Your task to perform on an android device: check battery use Image 0: 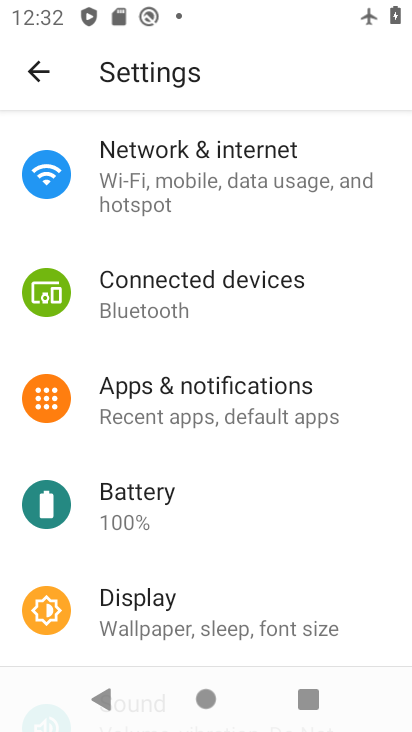
Step 0: task complete